Your task to perform on an android device: open chrome and create a bookmark for the current page Image 0: 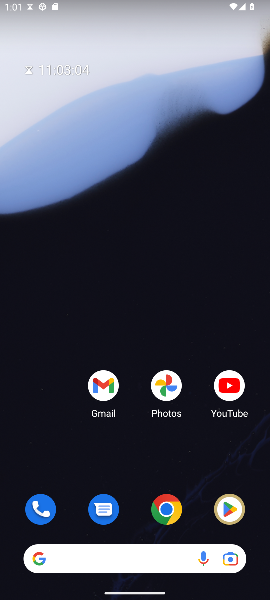
Step 0: click (170, 507)
Your task to perform on an android device: open chrome and create a bookmark for the current page Image 1: 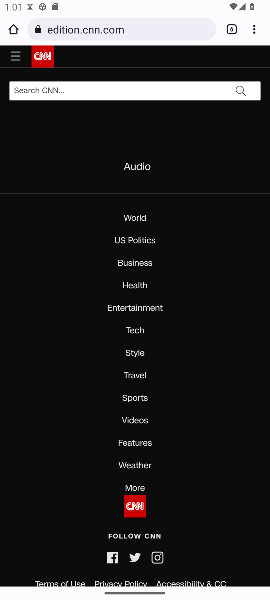
Step 1: drag from (249, 34) to (161, 34)
Your task to perform on an android device: open chrome and create a bookmark for the current page Image 2: 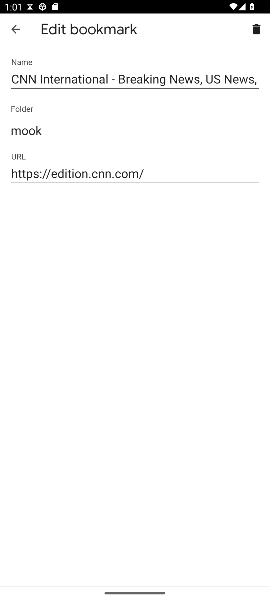
Step 2: press home button
Your task to perform on an android device: open chrome and create a bookmark for the current page Image 3: 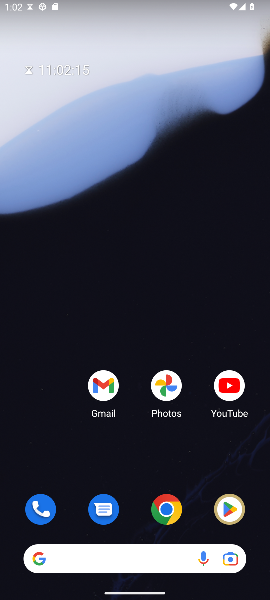
Step 3: press home button
Your task to perform on an android device: open chrome and create a bookmark for the current page Image 4: 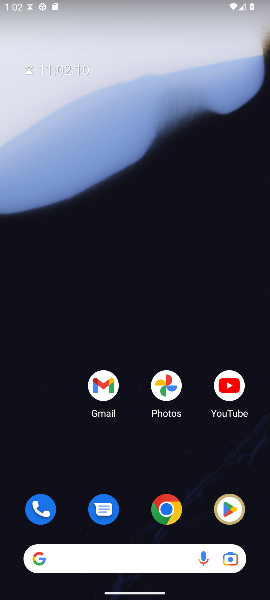
Step 4: click (168, 509)
Your task to perform on an android device: open chrome and create a bookmark for the current page Image 5: 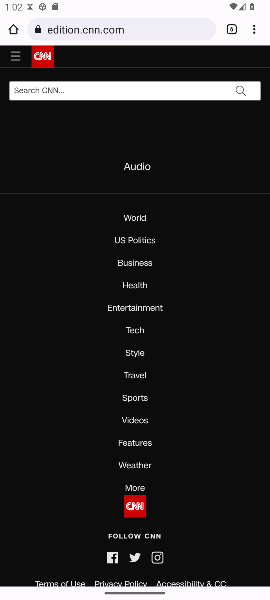
Step 5: task complete